Your task to perform on an android device: set default search engine in the chrome app Image 0: 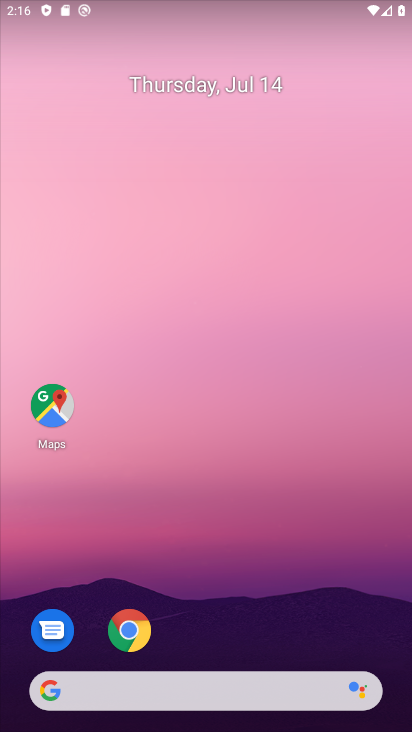
Step 0: click (125, 623)
Your task to perform on an android device: set default search engine in the chrome app Image 1: 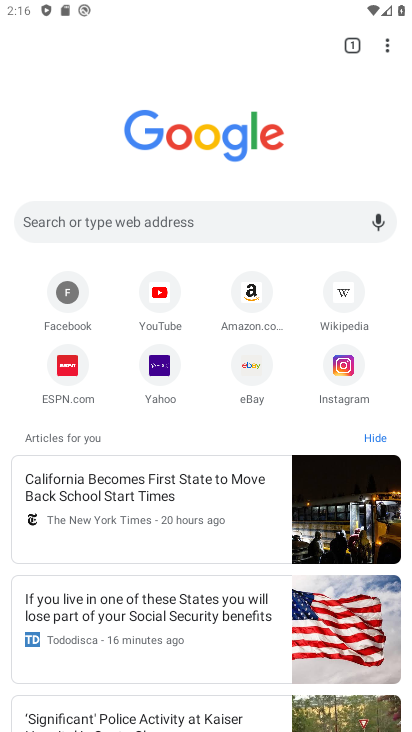
Step 1: click (382, 40)
Your task to perform on an android device: set default search engine in the chrome app Image 2: 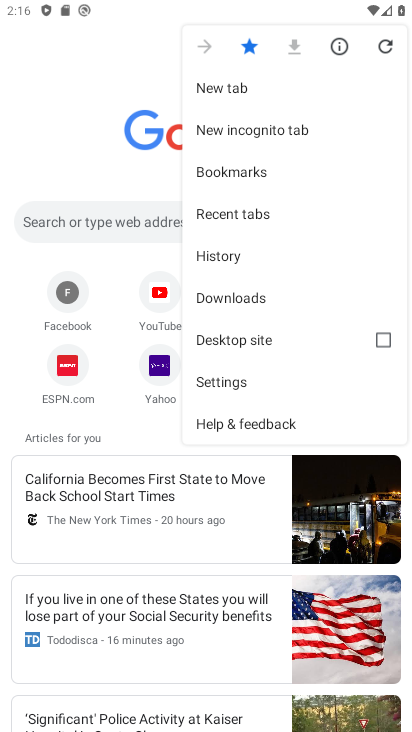
Step 2: click (247, 381)
Your task to perform on an android device: set default search engine in the chrome app Image 3: 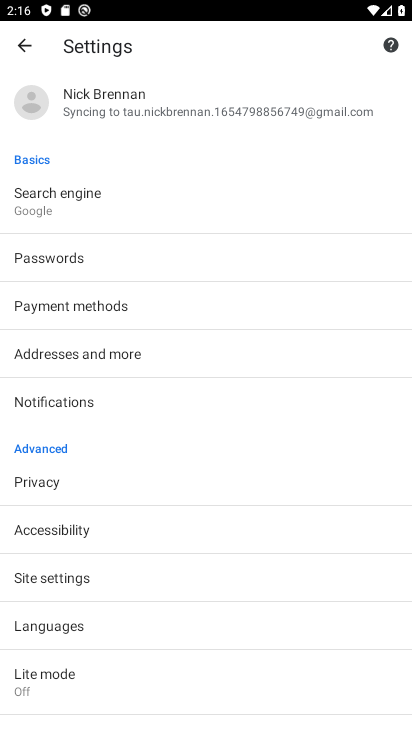
Step 3: click (138, 194)
Your task to perform on an android device: set default search engine in the chrome app Image 4: 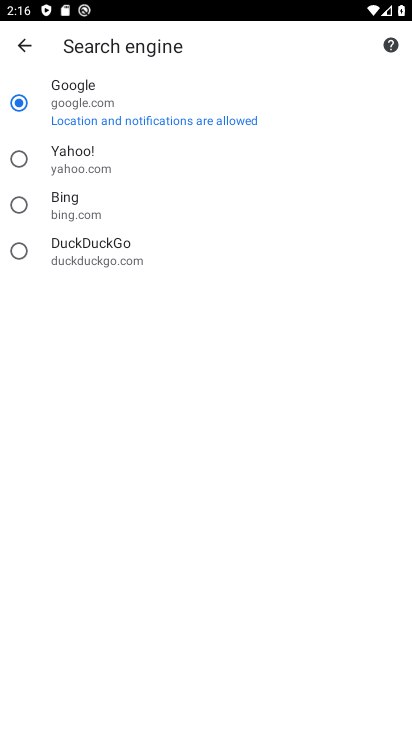
Step 4: click (185, 172)
Your task to perform on an android device: set default search engine in the chrome app Image 5: 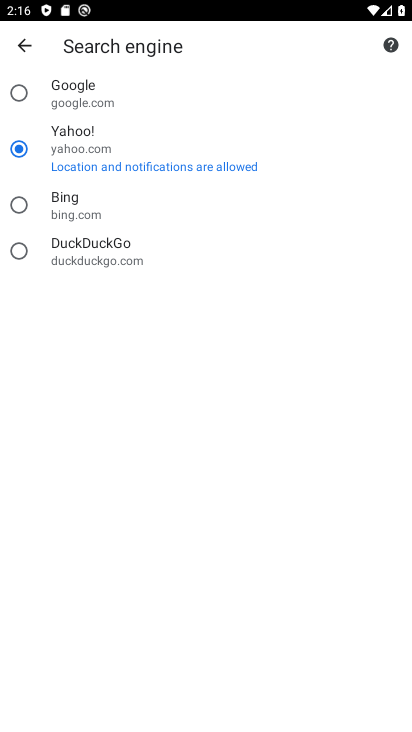
Step 5: task complete